Your task to perform on an android device: toggle priority inbox in the gmail app Image 0: 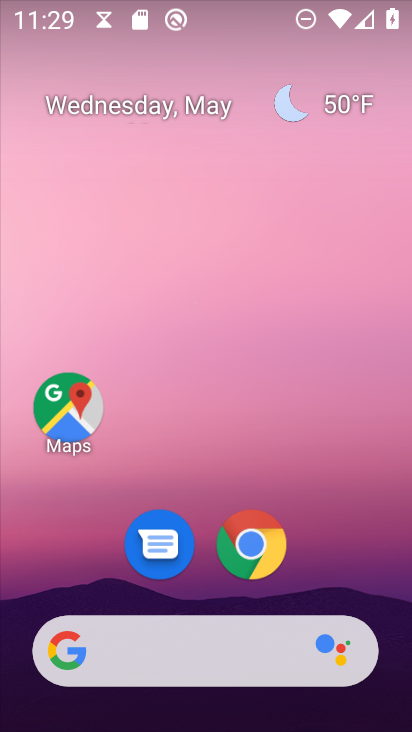
Step 0: drag from (201, 592) to (213, 139)
Your task to perform on an android device: toggle priority inbox in the gmail app Image 1: 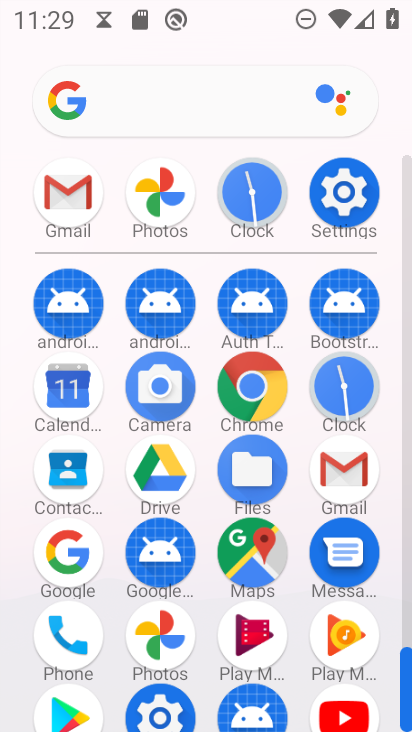
Step 1: click (47, 195)
Your task to perform on an android device: toggle priority inbox in the gmail app Image 2: 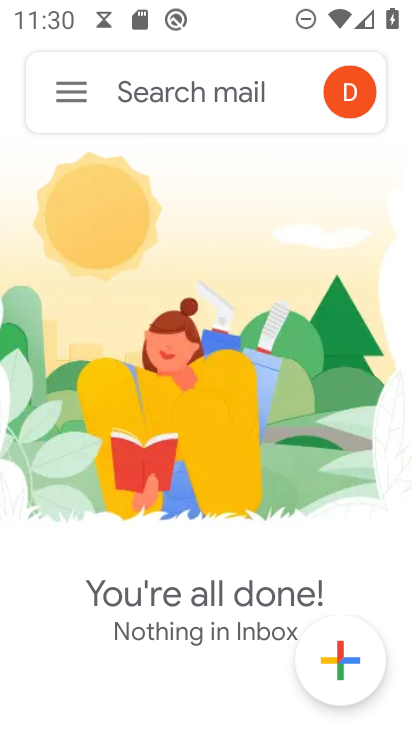
Step 2: click (91, 107)
Your task to perform on an android device: toggle priority inbox in the gmail app Image 3: 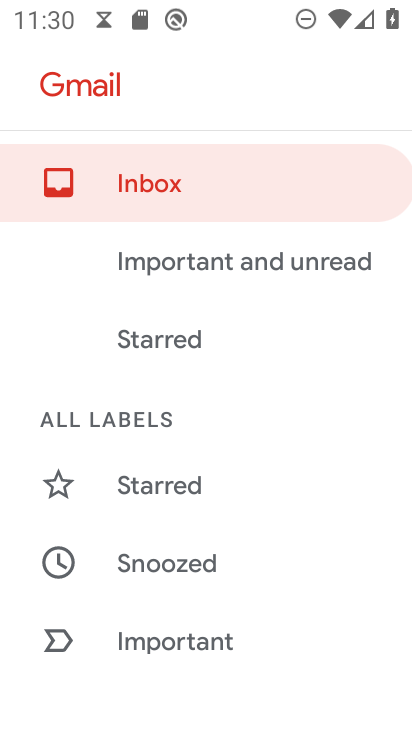
Step 3: drag from (86, 626) to (101, 187)
Your task to perform on an android device: toggle priority inbox in the gmail app Image 4: 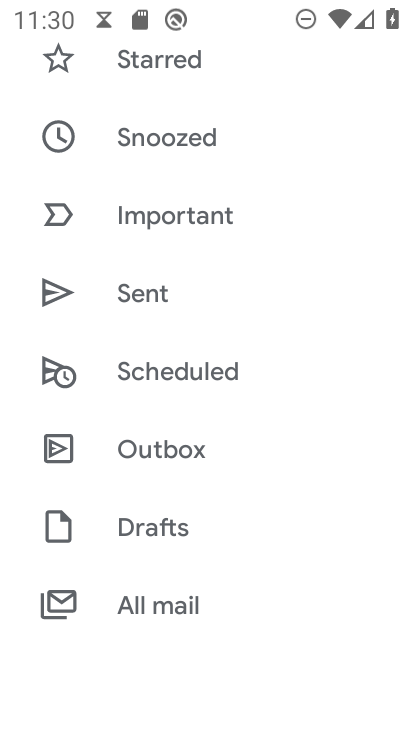
Step 4: drag from (200, 638) to (239, 305)
Your task to perform on an android device: toggle priority inbox in the gmail app Image 5: 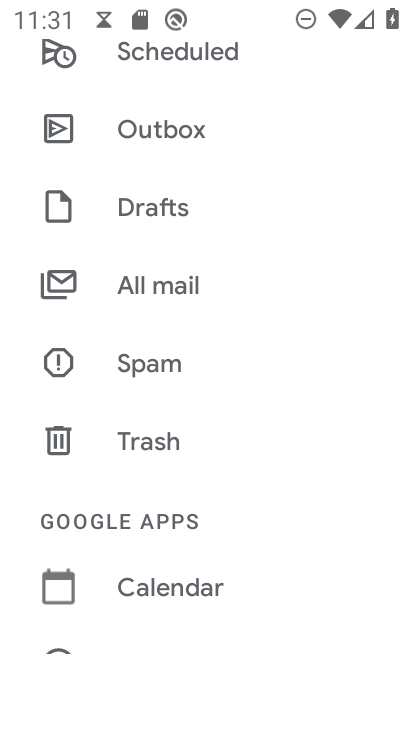
Step 5: drag from (121, 607) to (230, 19)
Your task to perform on an android device: toggle priority inbox in the gmail app Image 6: 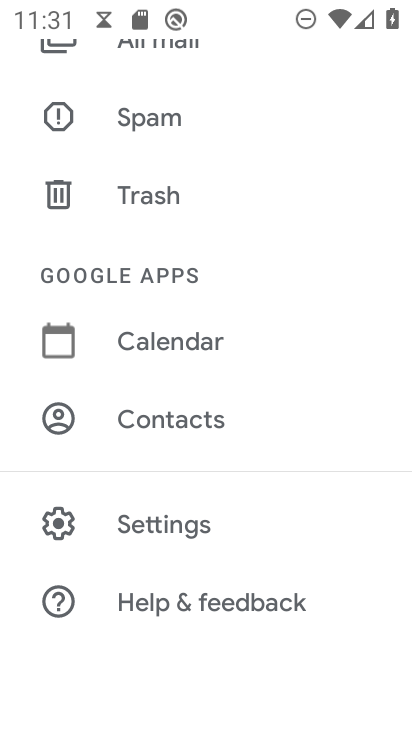
Step 6: click (120, 535)
Your task to perform on an android device: toggle priority inbox in the gmail app Image 7: 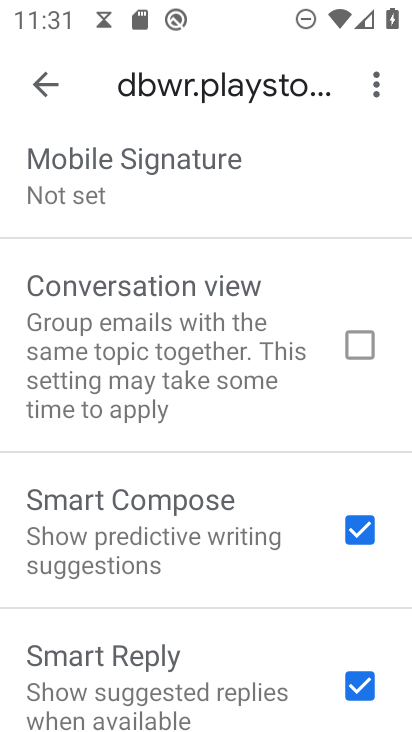
Step 7: drag from (199, 198) to (186, 685)
Your task to perform on an android device: toggle priority inbox in the gmail app Image 8: 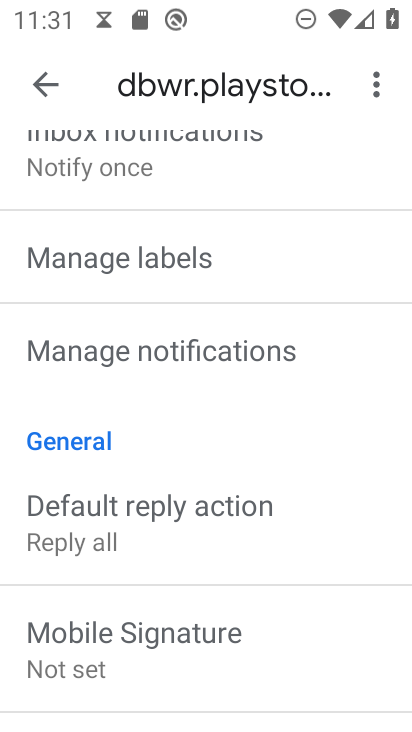
Step 8: drag from (186, 259) to (158, 731)
Your task to perform on an android device: toggle priority inbox in the gmail app Image 9: 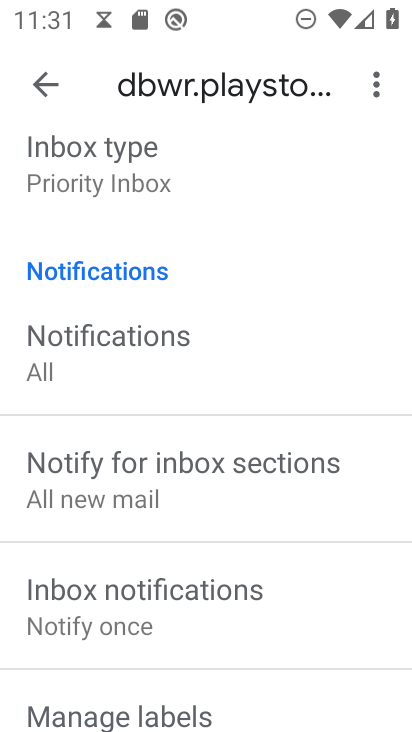
Step 9: click (166, 184)
Your task to perform on an android device: toggle priority inbox in the gmail app Image 10: 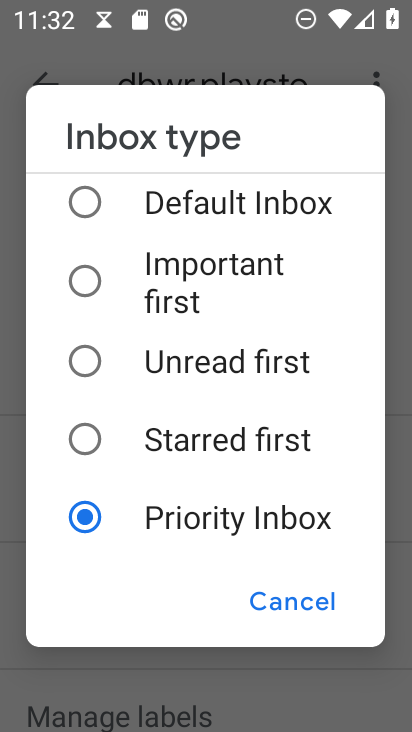
Step 10: click (121, 437)
Your task to perform on an android device: toggle priority inbox in the gmail app Image 11: 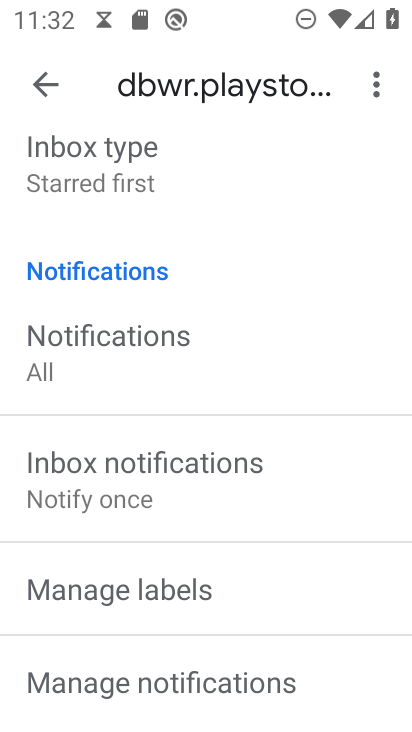
Step 11: task complete